Your task to perform on an android device: Open Android settings Image 0: 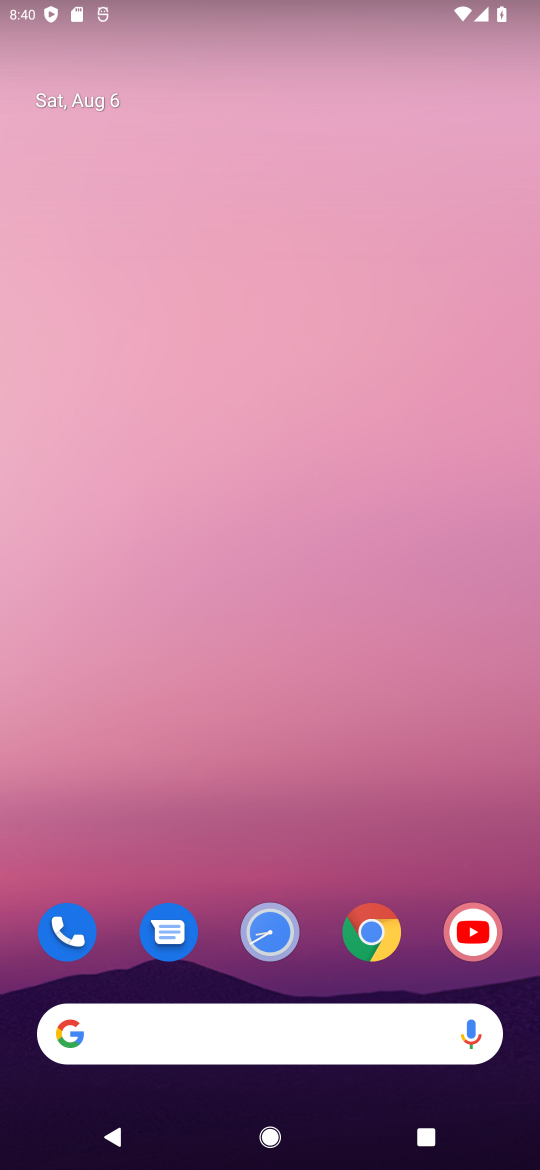
Step 0: drag from (192, 1037) to (276, 218)
Your task to perform on an android device: Open Android settings Image 1: 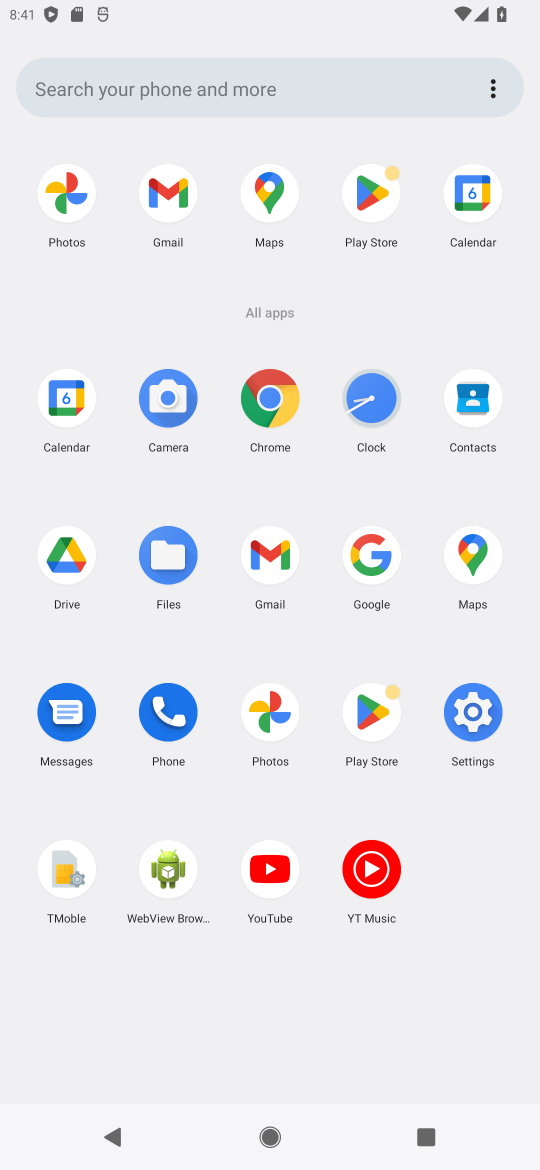
Step 1: click (471, 721)
Your task to perform on an android device: Open Android settings Image 2: 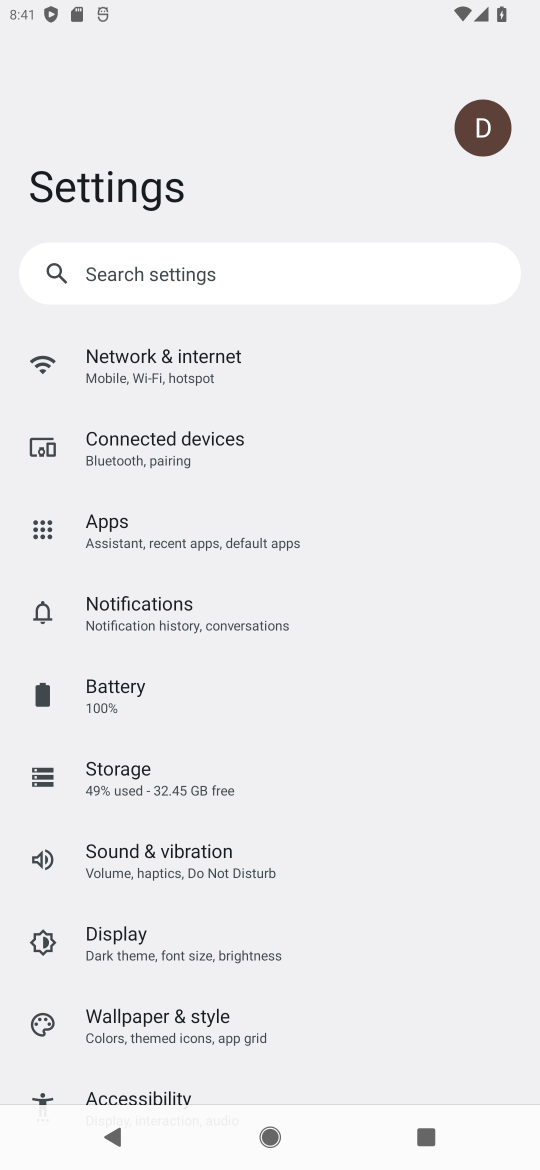
Step 2: task complete